Your task to perform on an android device: toggle pop-ups in chrome Image 0: 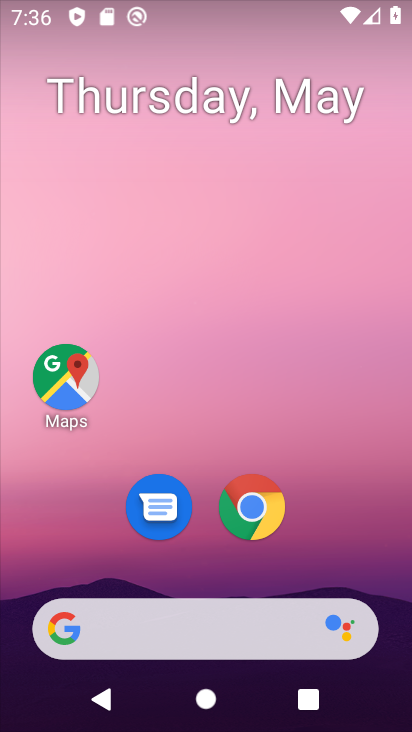
Step 0: drag from (234, 665) to (176, 134)
Your task to perform on an android device: toggle pop-ups in chrome Image 1: 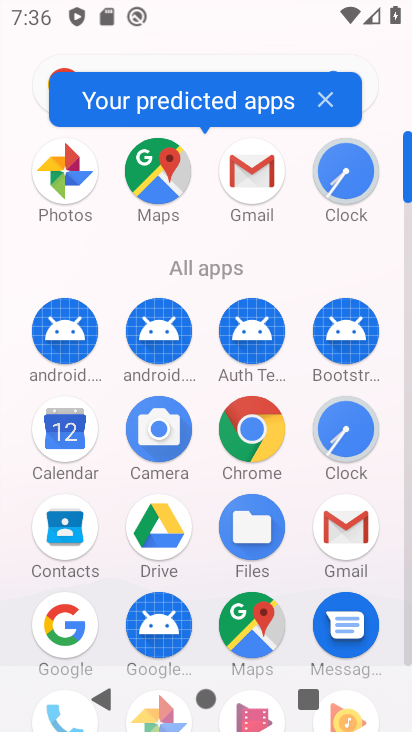
Step 1: click (250, 446)
Your task to perform on an android device: toggle pop-ups in chrome Image 2: 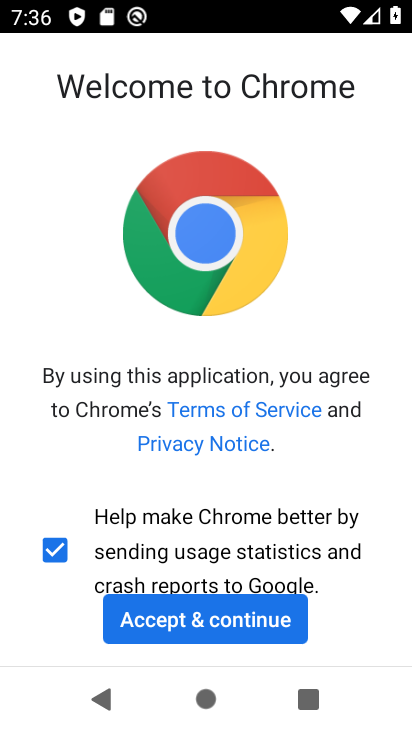
Step 2: click (203, 609)
Your task to perform on an android device: toggle pop-ups in chrome Image 3: 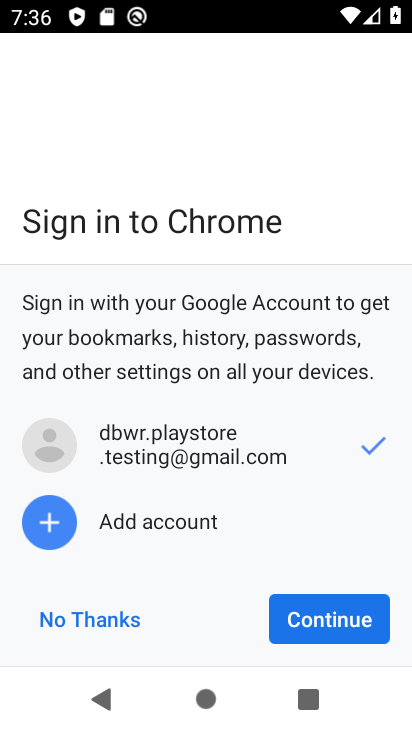
Step 3: click (328, 612)
Your task to perform on an android device: toggle pop-ups in chrome Image 4: 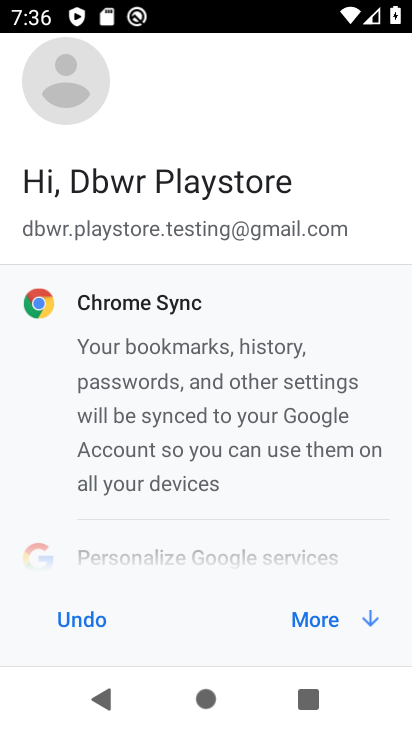
Step 4: click (340, 606)
Your task to perform on an android device: toggle pop-ups in chrome Image 5: 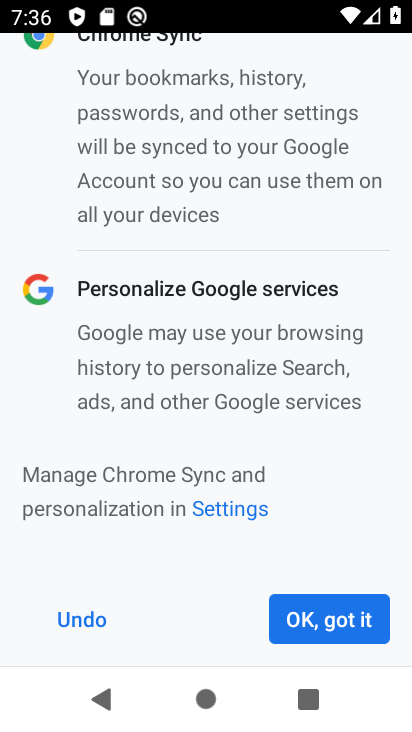
Step 5: click (356, 621)
Your task to perform on an android device: toggle pop-ups in chrome Image 6: 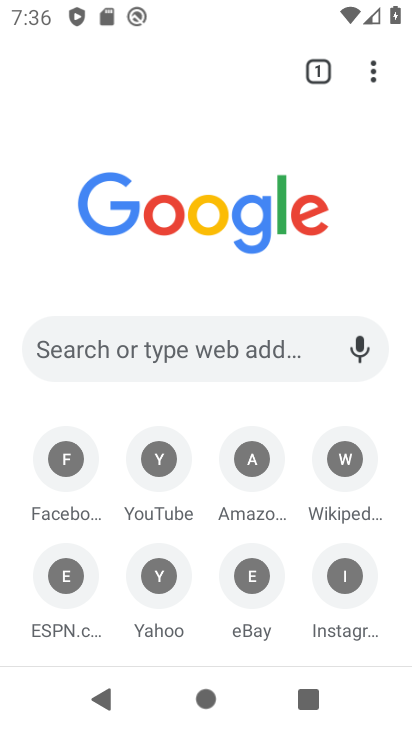
Step 6: click (372, 76)
Your task to perform on an android device: toggle pop-ups in chrome Image 7: 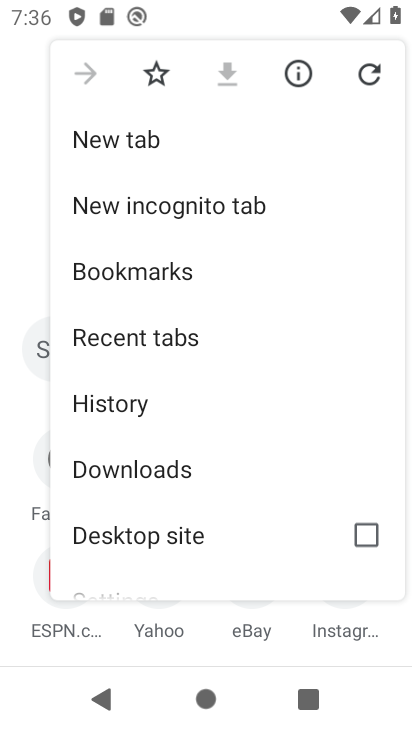
Step 7: drag from (139, 525) to (200, 330)
Your task to perform on an android device: toggle pop-ups in chrome Image 8: 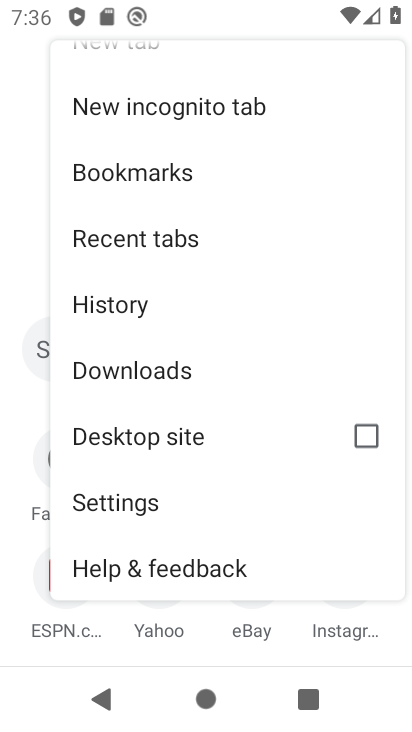
Step 8: click (118, 497)
Your task to perform on an android device: toggle pop-ups in chrome Image 9: 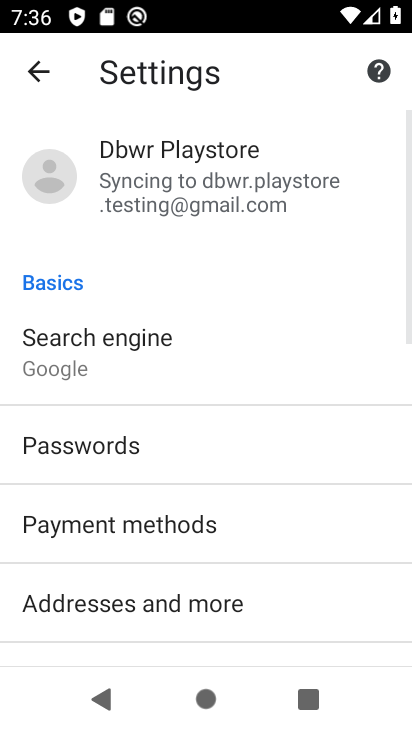
Step 9: drag from (173, 551) to (216, 241)
Your task to perform on an android device: toggle pop-ups in chrome Image 10: 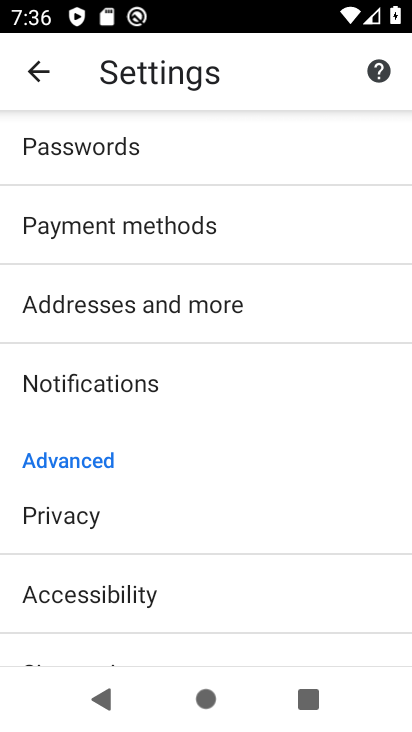
Step 10: drag from (92, 618) to (142, 493)
Your task to perform on an android device: toggle pop-ups in chrome Image 11: 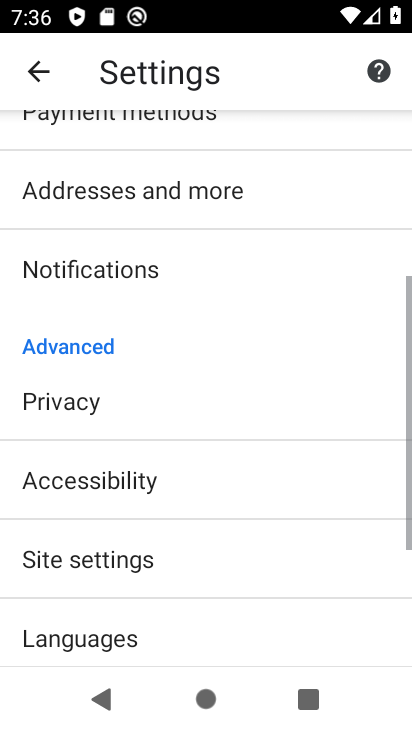
Step 11: click (98, 545)
Your task to perform on an android device: toggle pop-ups in chrome Image 12: 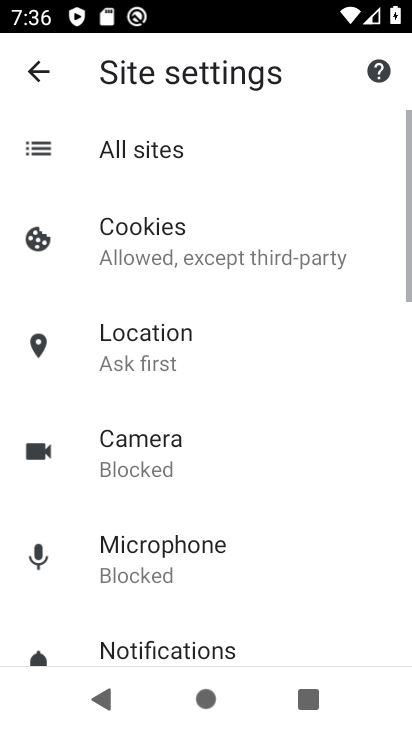
Step 12: drag from (149, 582) to (212, 240)
Your task to perform on an android device: toggle pop-ups in chrome Image 13: 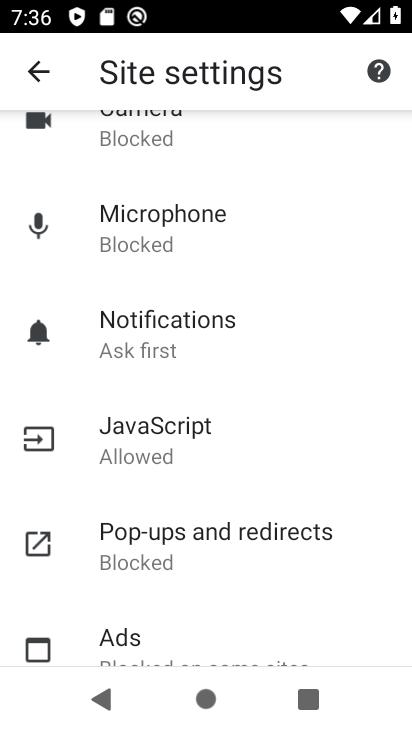
Step 13: click (155, 547)
Your task to perform on an android device: toggle pop-ups in chrome Image 14: 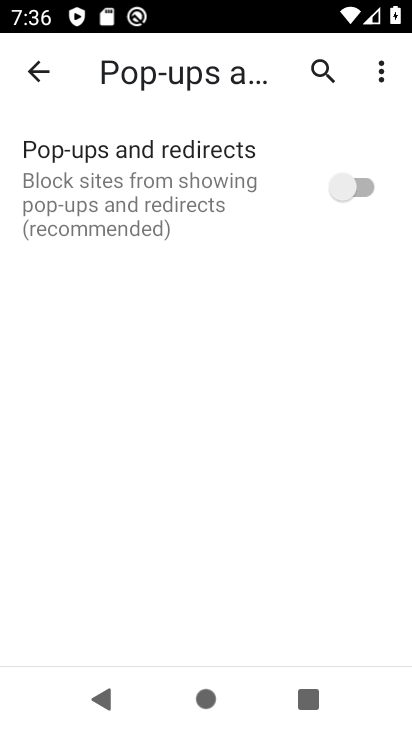
Step 14: task complete